Your task to perform on an android device: Open Youtube and go to the subscriptions tab Image 0: 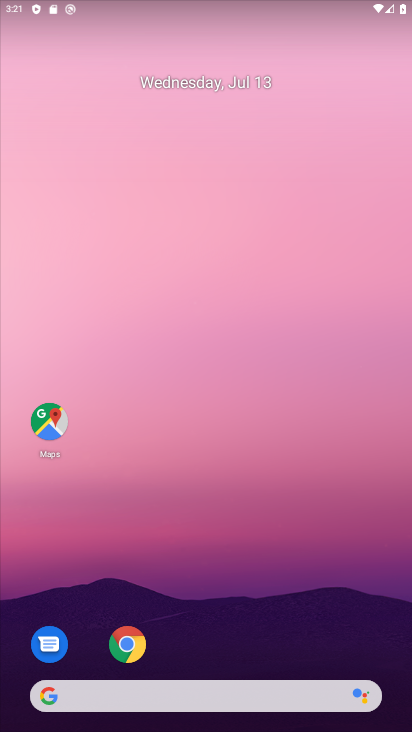
Step 0: drag from (197, 630) to (228, 97)
Your task to perform on an android device: Open Youtube and go to the subscriptions tab Image 1: 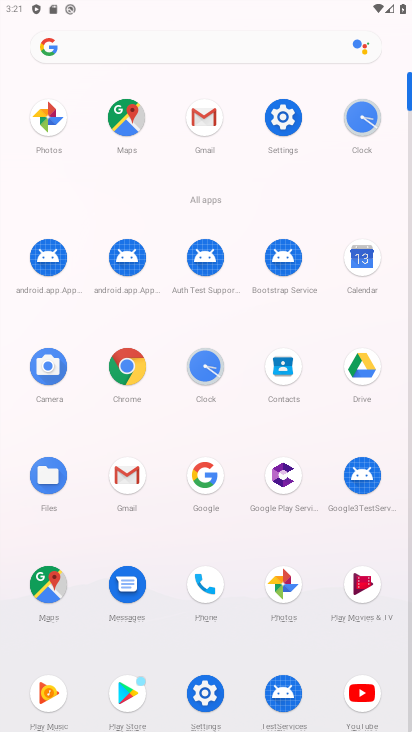
Step 1: click (354, 686)
Your task to perform on an android device: Open Youtube and go to the subscriptions tab Image 2: 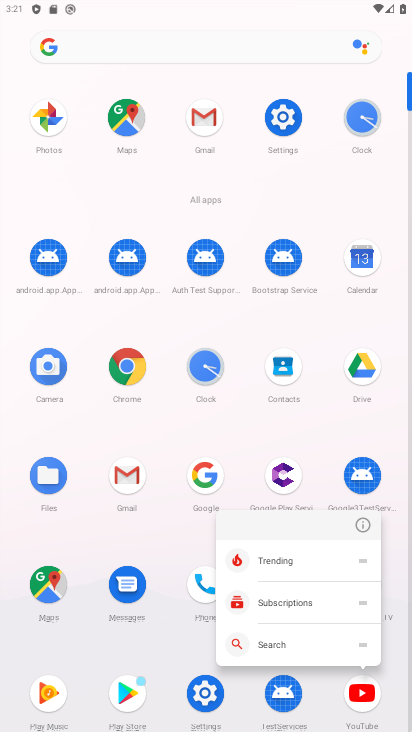
Step 2: click (276, 597)
Your task to perform on an android device: Open Youtube and go to the subscriptions tab Image 3: 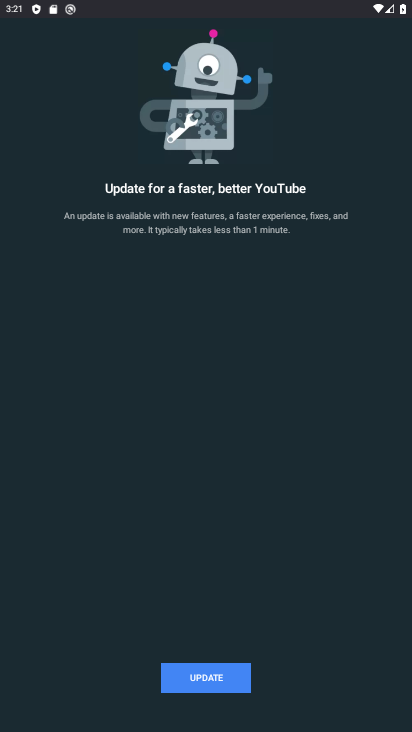
Step 3: task complete